Your task to perform on an android device: check storage Image 0: 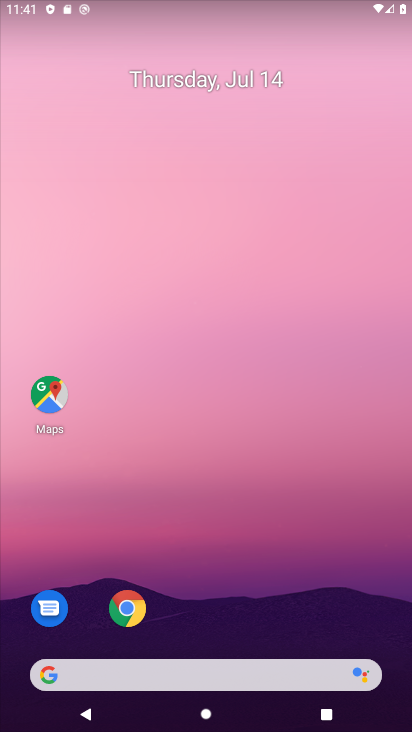
Step 0: drag from (300, 691) to (251, 1)
Your task to perform on an android device: check storage Image 1: 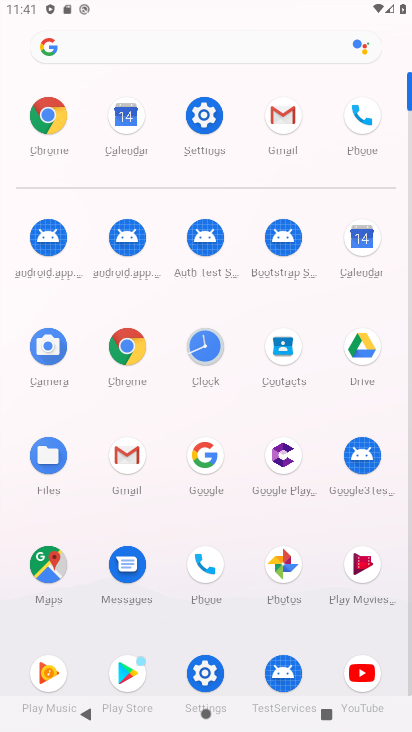
Step 1: click (193, 108)
Your task to perform on an android device: check storage Image 2: 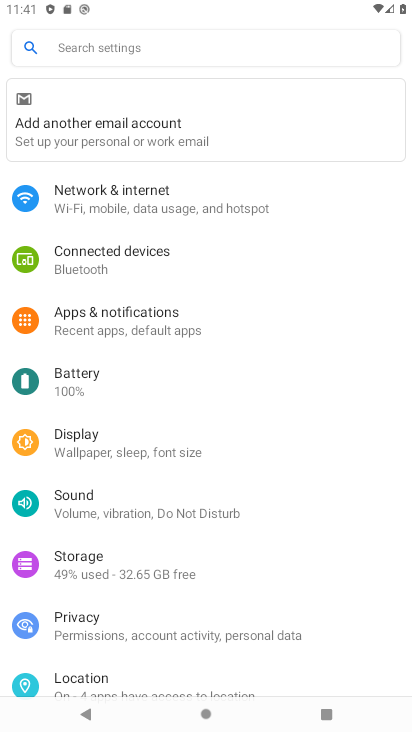
Step 2: click (64, 565)
Your task to perform on an android device: check storage Image 3: 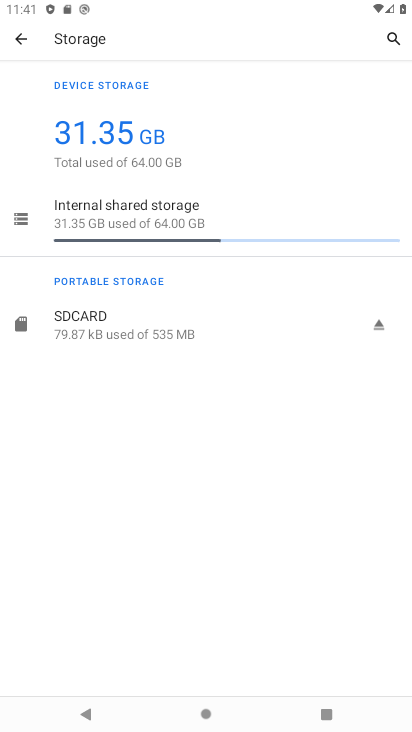
Step 3: task complete